Your task to perform on an android device: Open eBay Image 0: 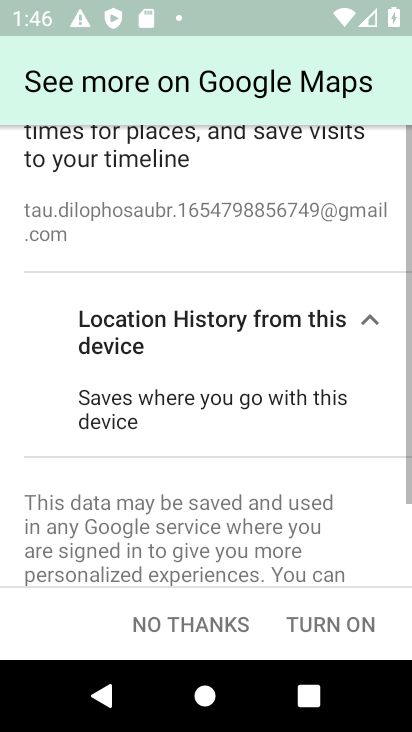
Step 0: press home button
Your task to perform on an android device: Open eBay Image 1: 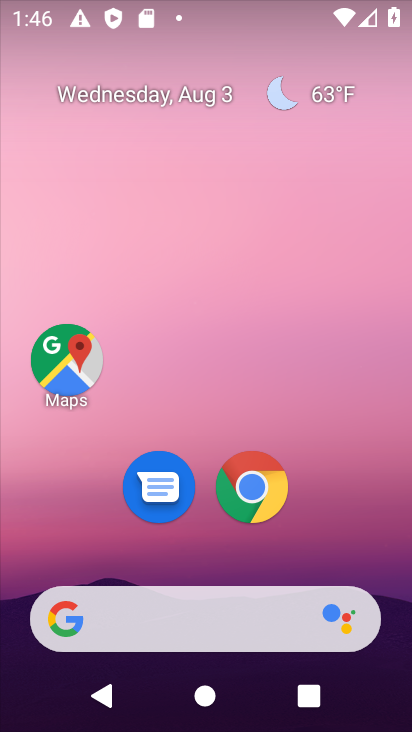
Step 1: drag from (178, 3) to (176, 506)
Your task to perform on an android device: Open eBay Image 2: 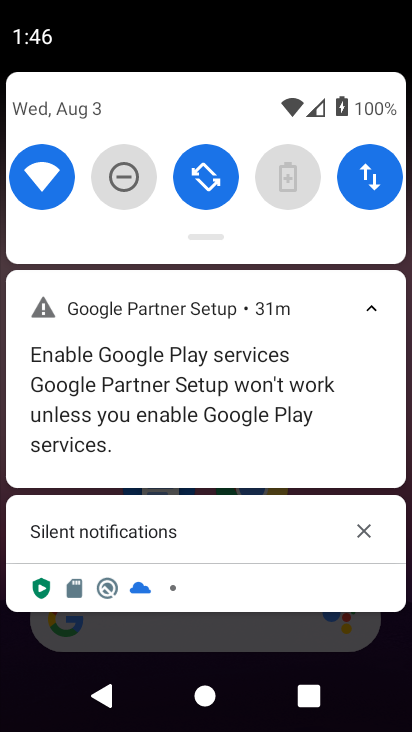
Step 2: click (388, 638)
Your task to perform on an android device: Open eBay Image 3: 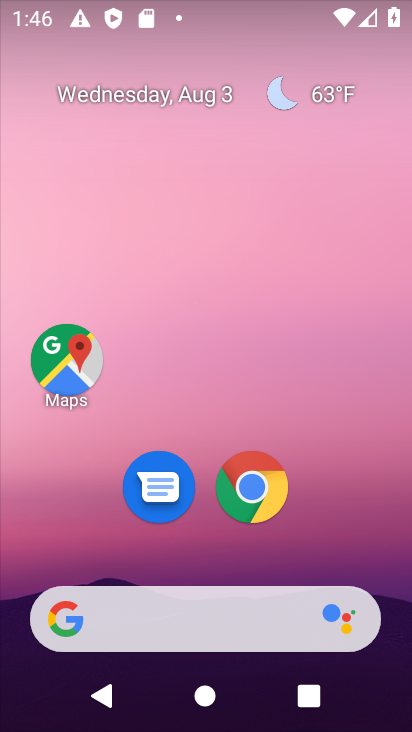
Step 3: click (254, 481)
Your task to perform on an android device: Open eBay Image 4: 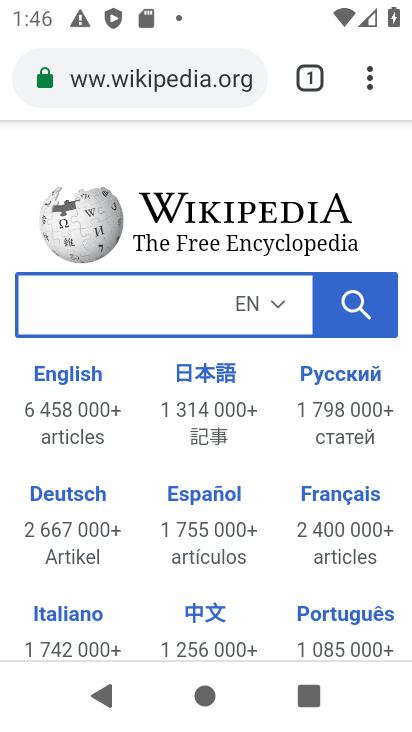
Step 4: click (160, 75)
Your task to perform on an android device: Open eBay Image 5: 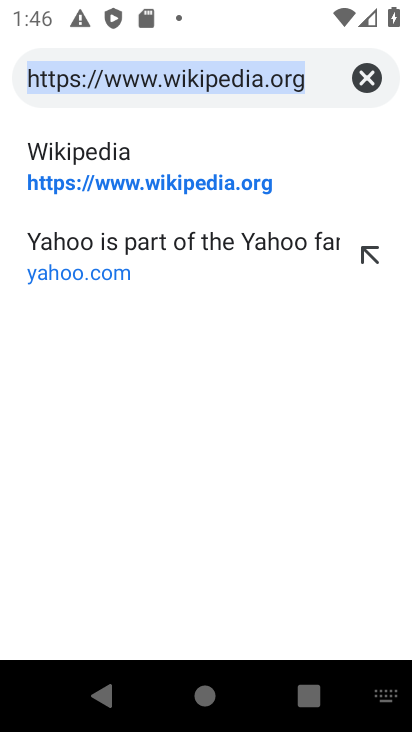
Step 5: click (367, 74)
Your task to perform on an android device: Open eBay Image 6: 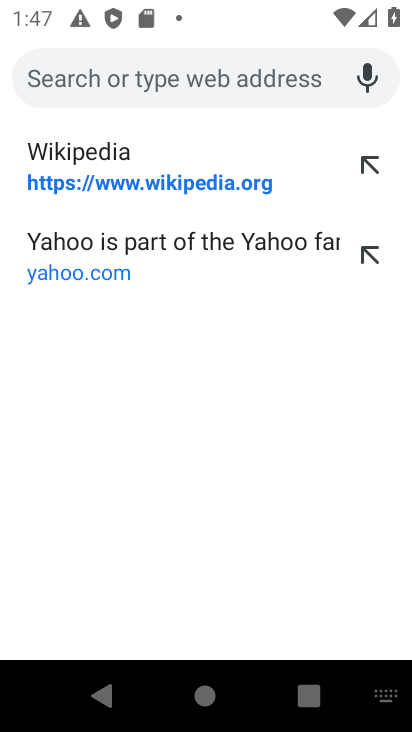
Step 6: type "eBay"
Your task to perform on an android device: Open eBay Image 7: 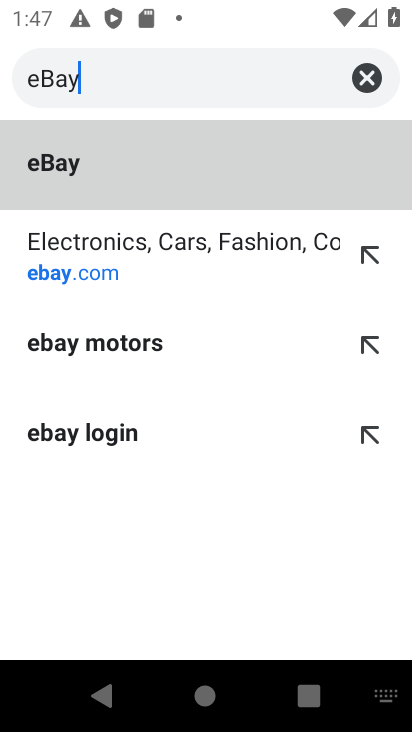
Step 7: click (72, 269)
Your task to perform on an android device: Open eBay Image 8: 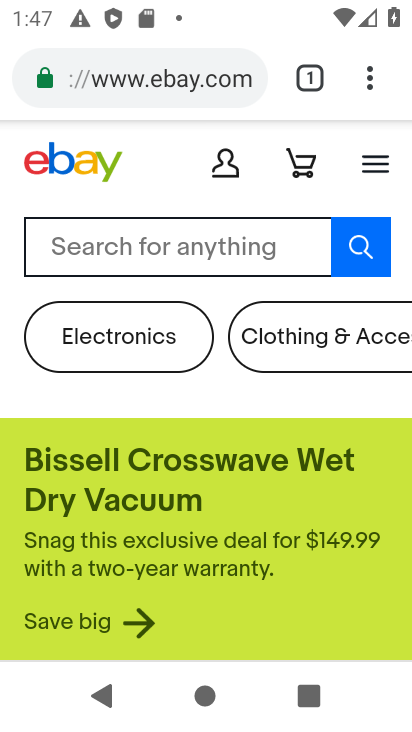
Step 8: task complete